Your task to perform on an android device: turn off airplane mode Image 0: 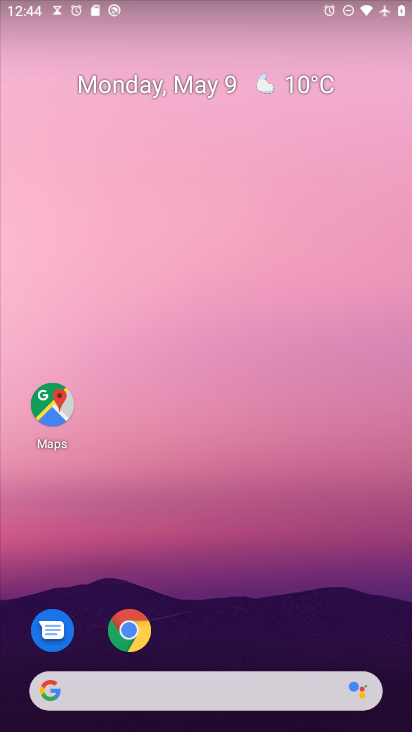
Step 0: drag from (177, 690) to (292, 133)
Your task to perform on an android device: turn off airplane mode Image 1: 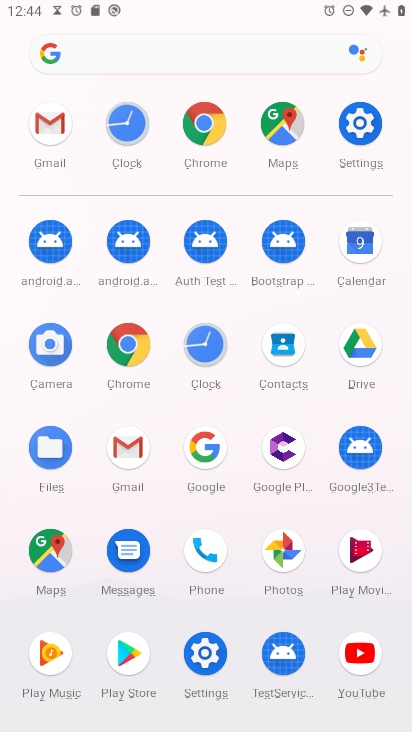
Step 1: click (350, 131)
Your task to perform on an android device: turn off airplane mode Image 2: 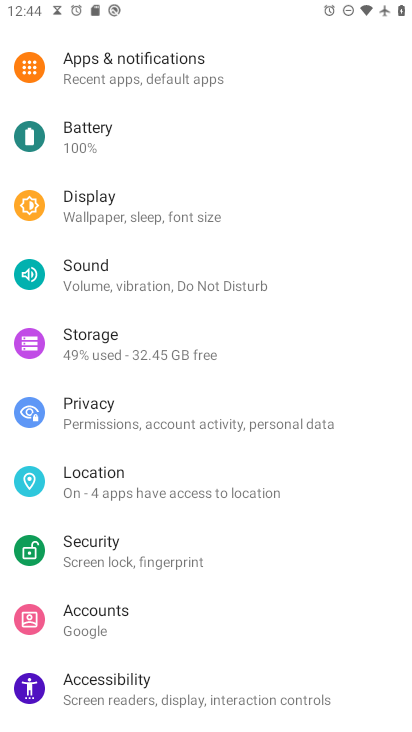
Step 2: drag from (265, 82) to (246, 499)
Your task to perform on an android device: turn off airplane mode Image 3: 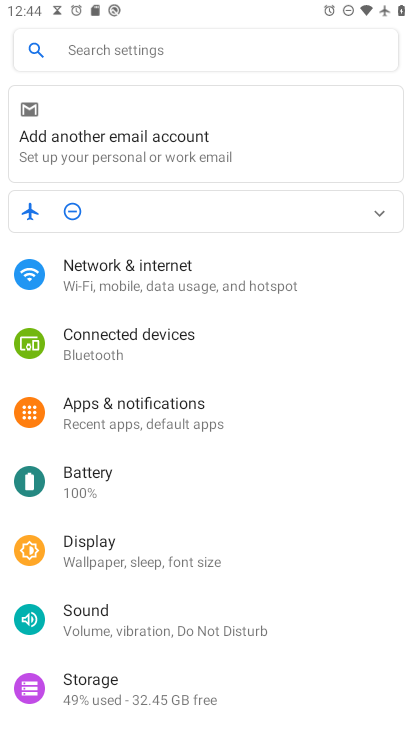
Step 3: click (182, 278)
Your task to perform on an android device: turn off airplane mode Image 4: 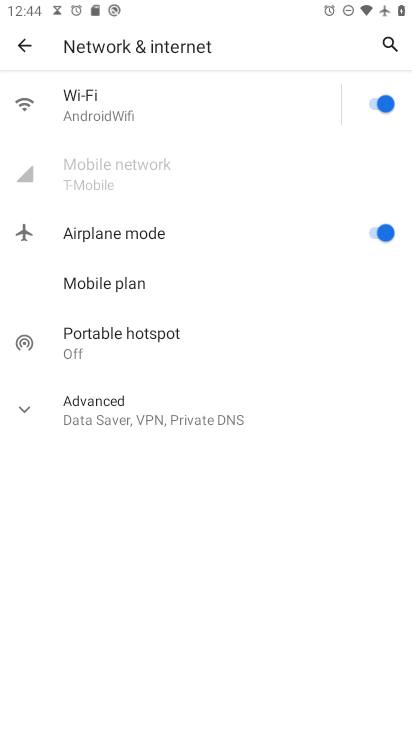
Step 4: click (374, 233)
Your task to perform on an android device: turn off airplane mode Image 5: 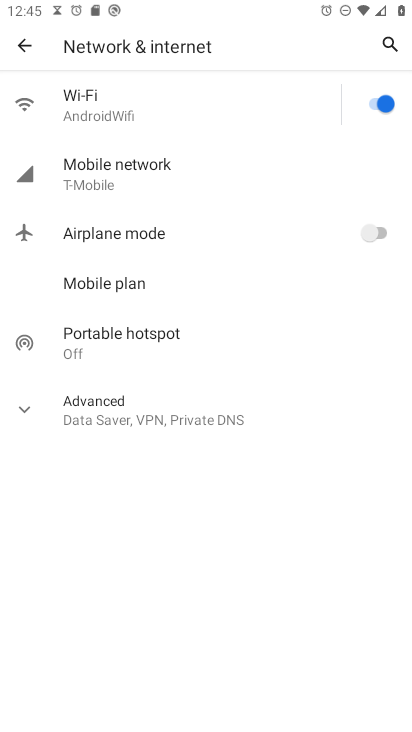
Step 5: task complete